Your task to perform on an android device: stop showing notifications on the lock screen Image 0: 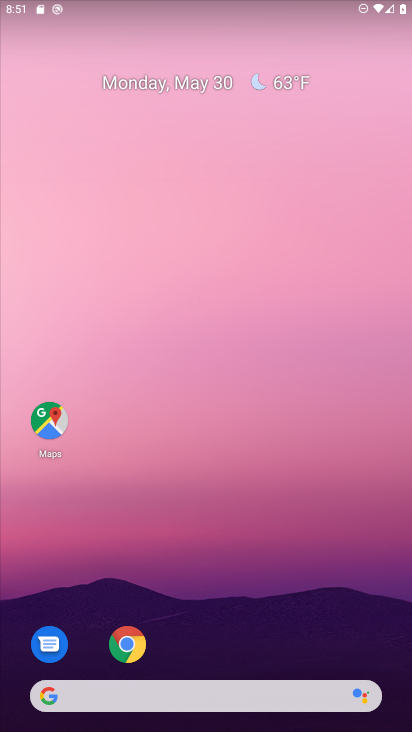
Step 0: drag from (221, 632) to (210, 49)
Your task to perform on an android device: stop showing notifications on the lock screen Image 1: 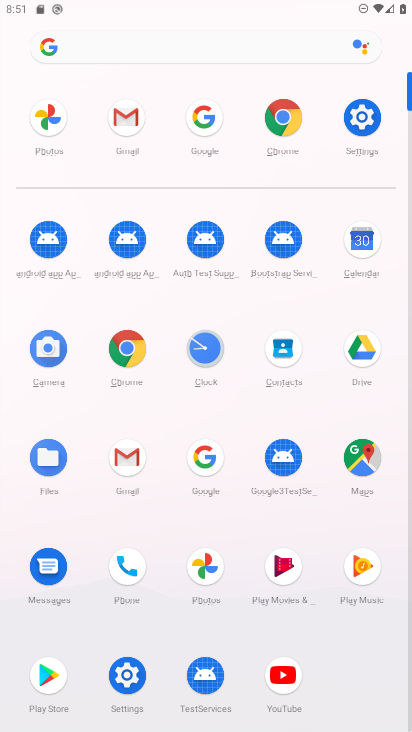
Step 1: click (366, 120)
Your task to perform on an android device: stop showing notifications on the lock screen Image 2: 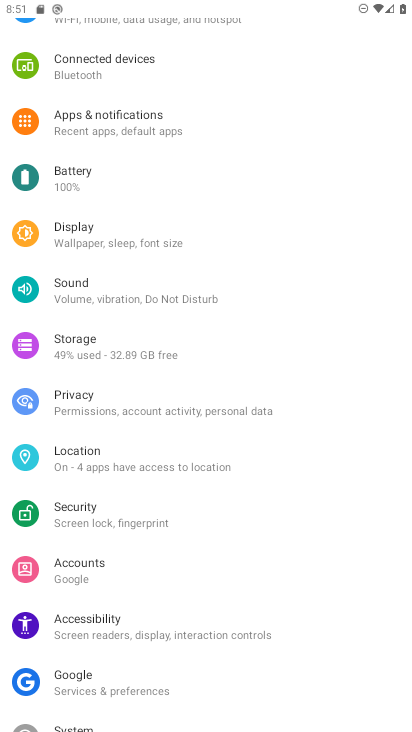
Step 2: click (131, 126)
Your task to perform on an android device: stop showing notifications on the lock screen Image 3: 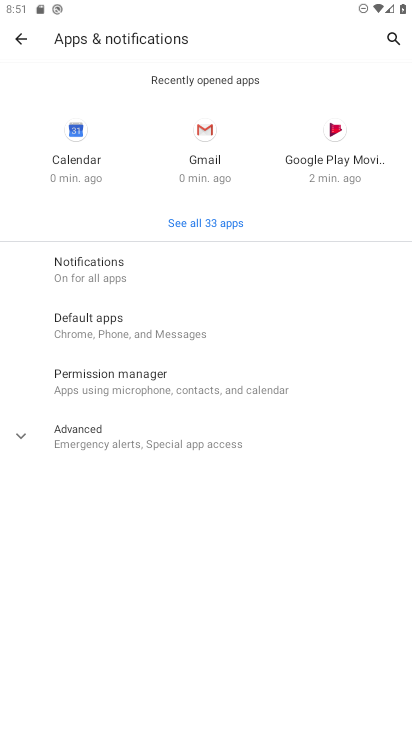
Step 3: click (142, 266)
Your task to perform on an android device: stop showing notifications on the lock screen Image 4: 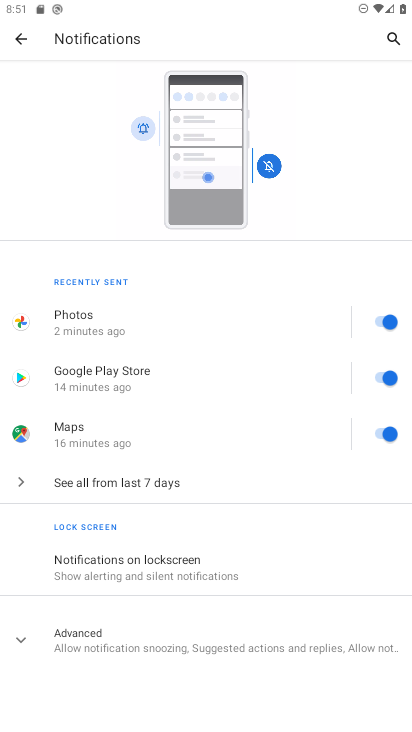
Step 4: click (186, 569)
Your task to perform on an android device: stop showing notifications on the lock screen Image 5: 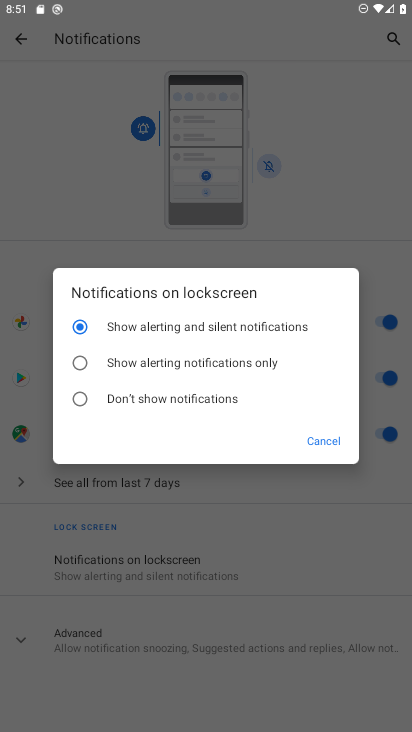
Step 5: click (83, 399)
Your task to perform on an android device: stop showing notifications on the lock screen Image 6: 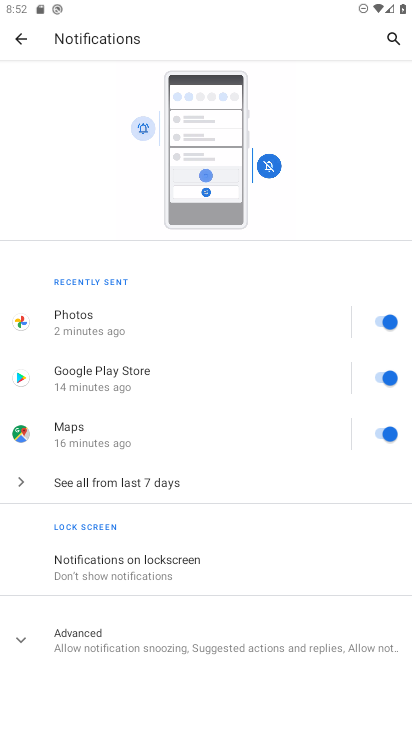
Step 6: task complete